Your task to perform on an android device: toggle notifications settings in the gmail app Image 0: 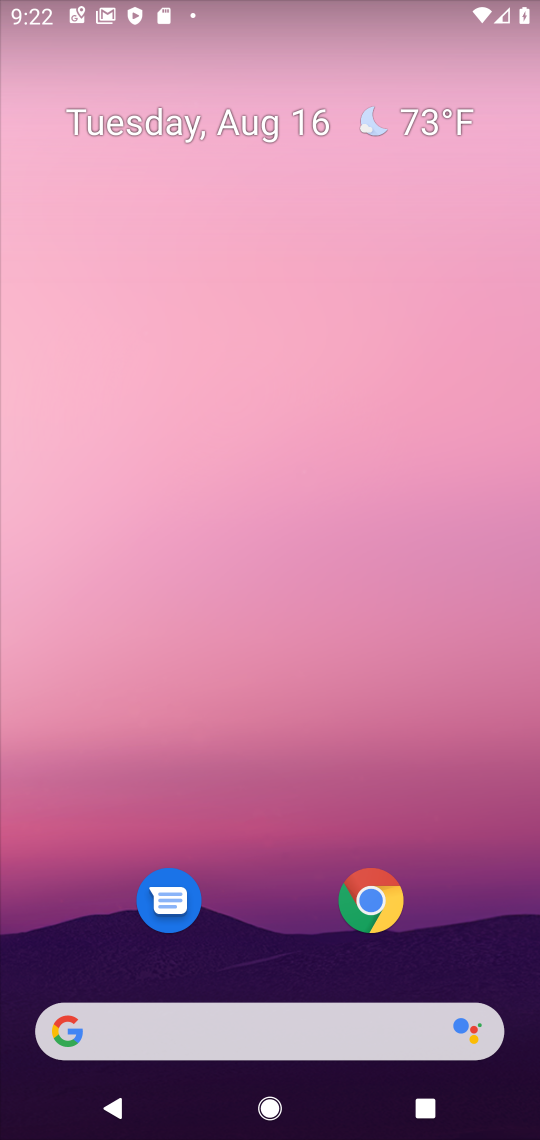
Step 0: drag from (319, 811) to (325, 96)
Your task to perform on an android device: toggle notifications settings in the gmail app Image 1: 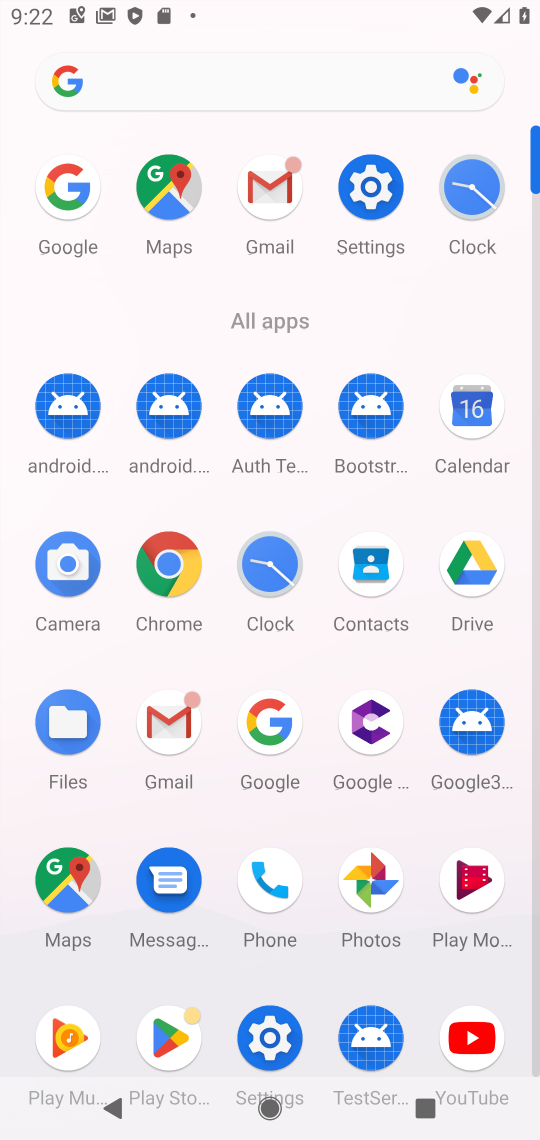
Step 1: click (259, 198)
Your task to perform on an android device: toggle notifications settings in the gmail app Image 2: 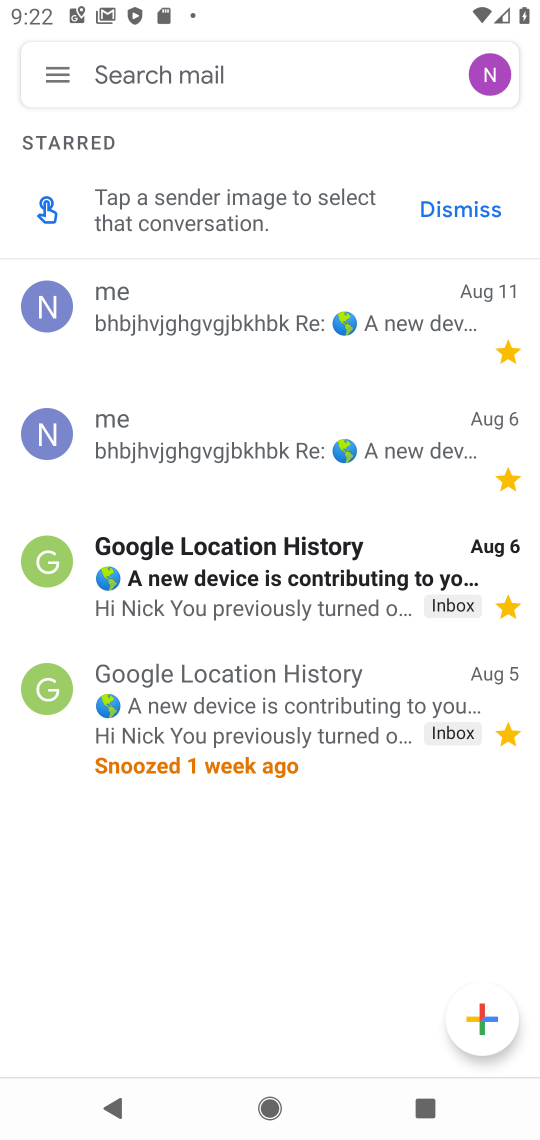
Step 2: click (56, 79)
Your task to perform on an android device: toggle notifications settings in the gmail app Image 3: 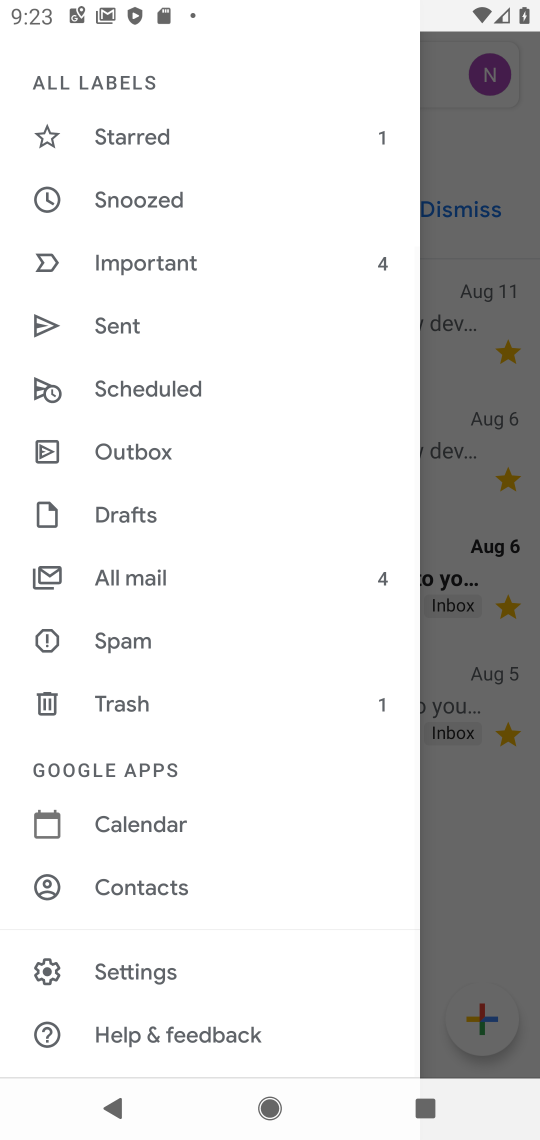
Step 3: click (142, 955)
Your task to perform on an android device: toggle notifications settings in the gmail app Image 4: 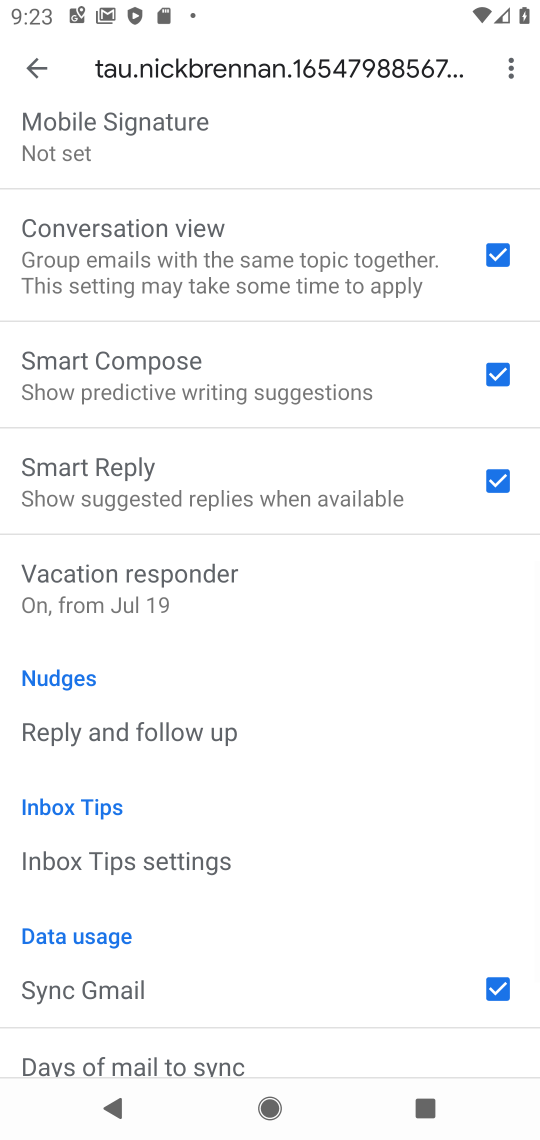
Step 4: drag from (141, 271) to (180, 899)
Your task to perform on an android device: toggle notifications settings in the gmail app Image 5: 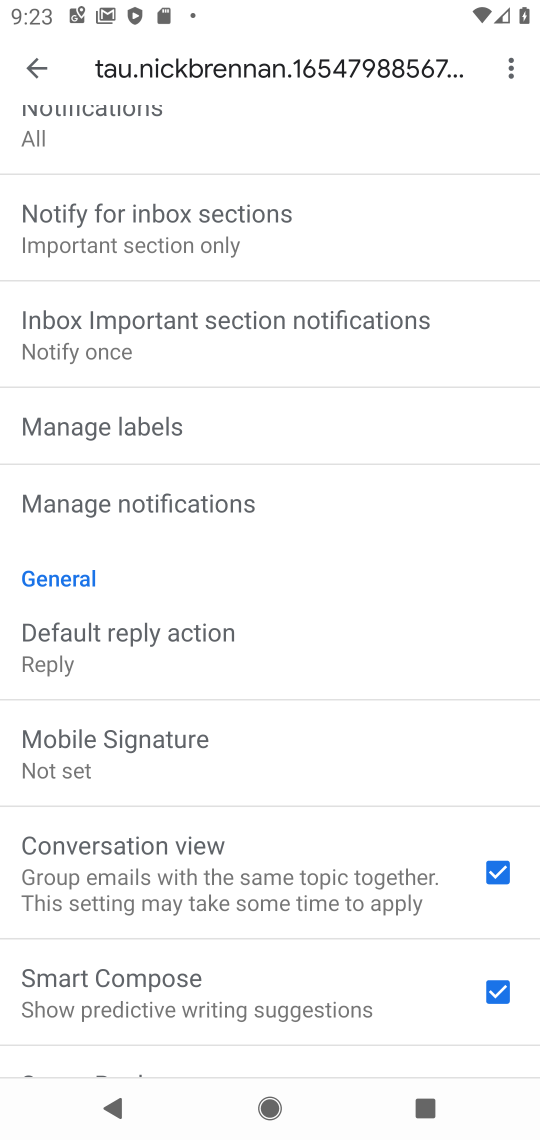
Step 5: click (106, 502)
Your task to perform on an android device: toggle notifications settings in the gmail app Image 6: 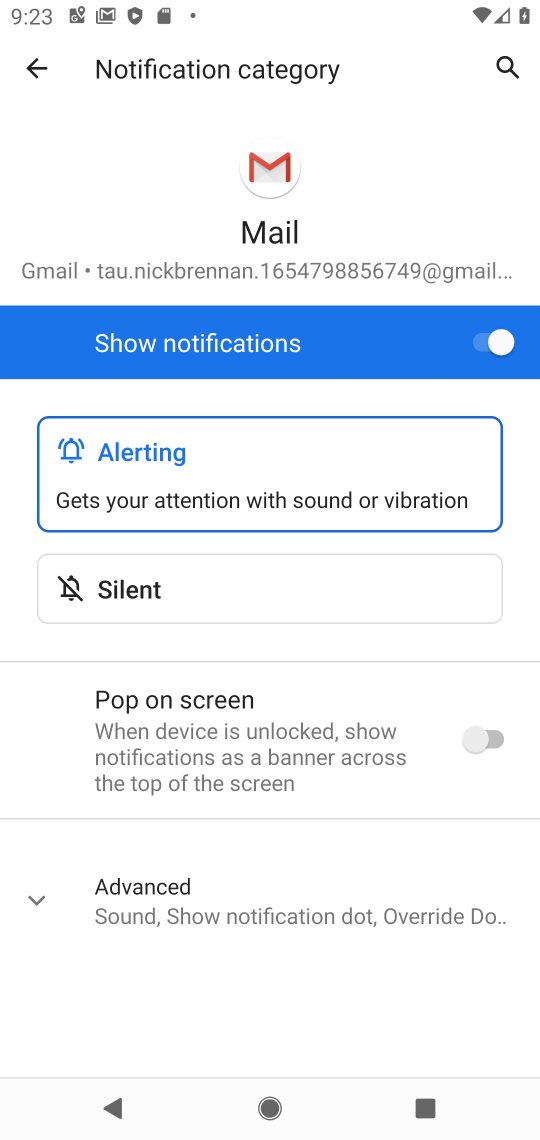
Step 6: click (488, 336)
Your task to perform on an android device: toggle notifications settings in the gmail app Image 7: 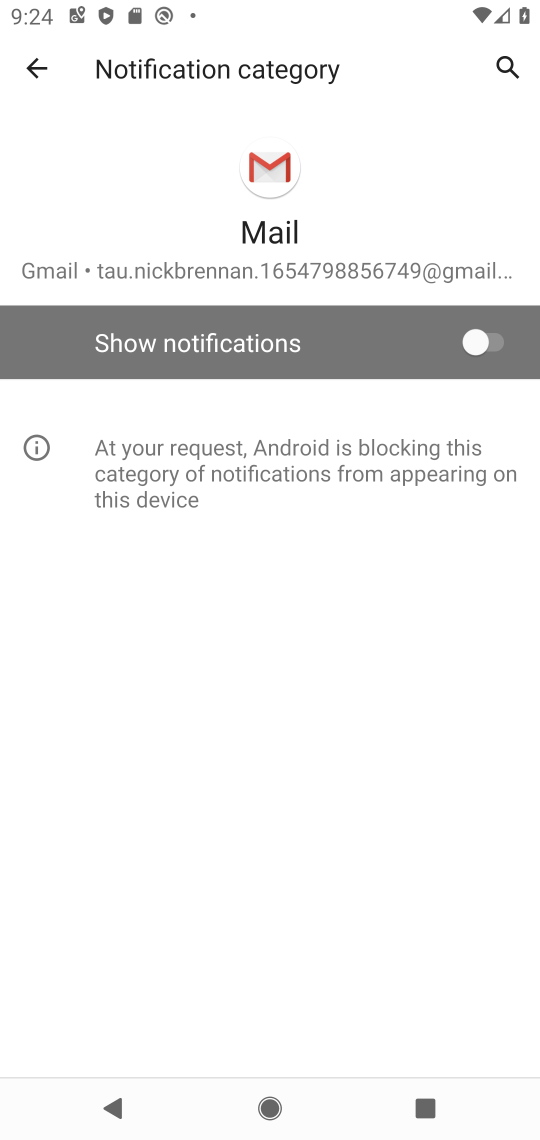
Step 7: click (487, 344)
Your task to perform on an android device: toggle notifications settings in the gmail app Image 8: 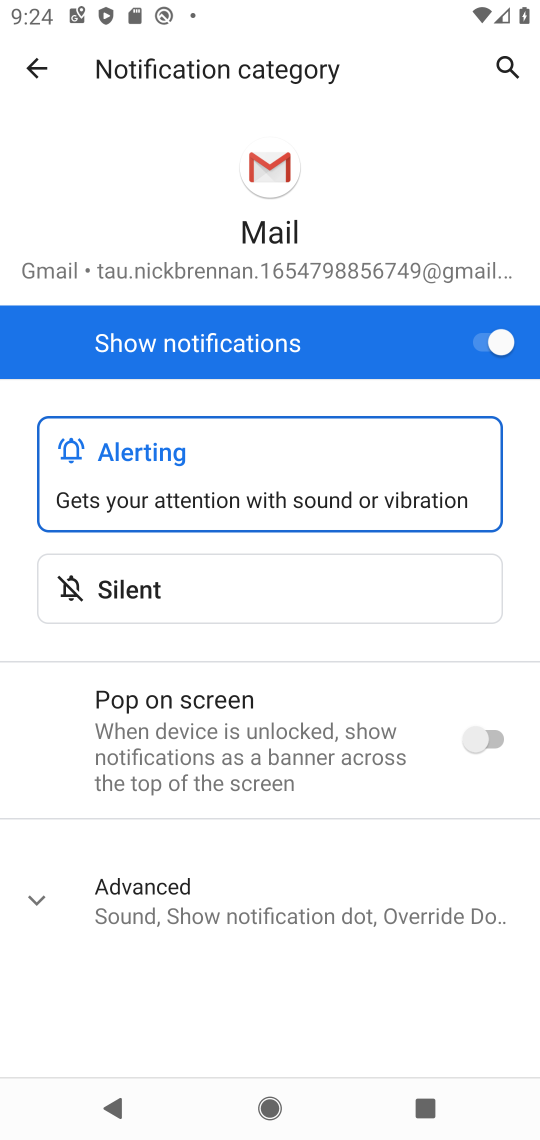
Step 8: task complete